Your task to perform on an android device: Check the weather Image 0: 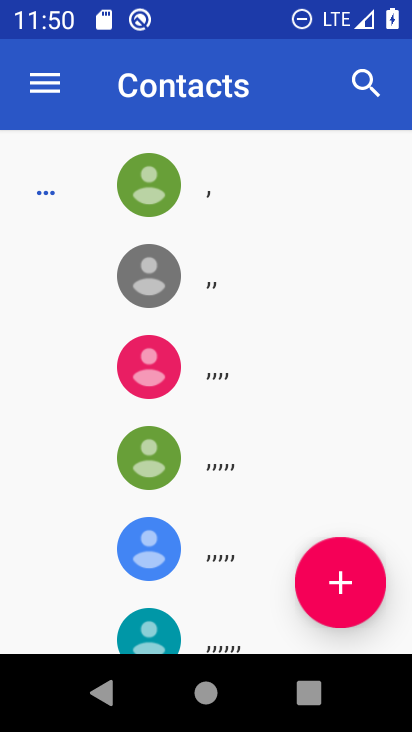
Step 0: press home button
Your task to perform on an android device: Check the weather Image 1: 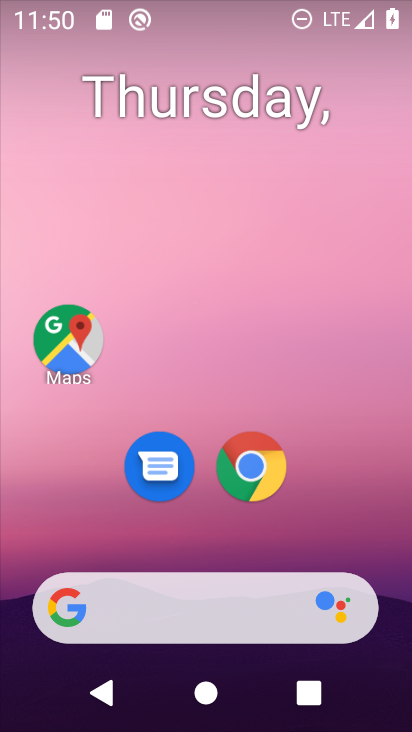
Step 1: drag from (242, 572) to (322, 22)
Your task to perform on an android device: Check the weather Image 2: 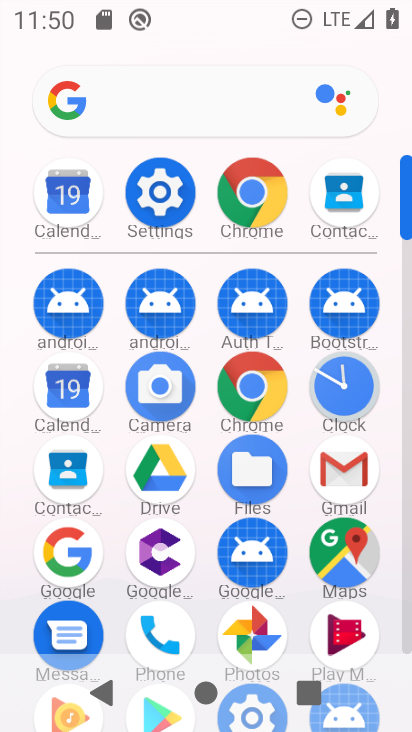
Step 2: press home button
Your task to perform on an android device: Check the weather Image 3: 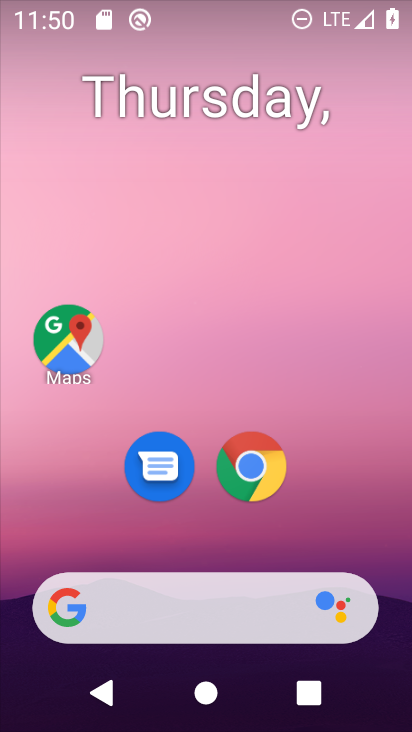
Step 3: drag from (26, 265) to (321, 243)
Your task to perform on an android device: Check the weather Image 4: 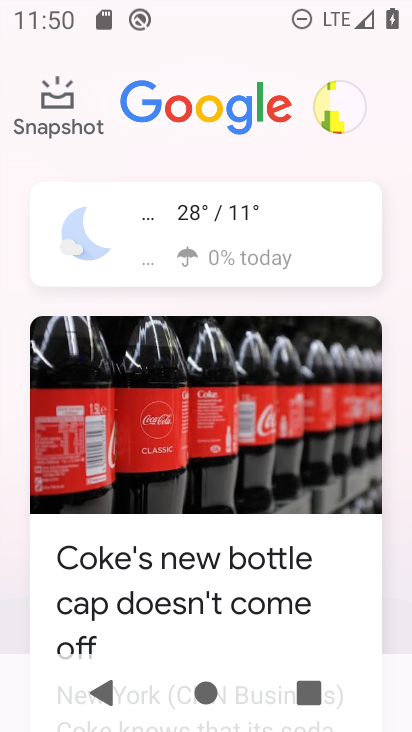
Step 4: click (192, 217)
Your task to perform on an android device: Check the weather Image 5: 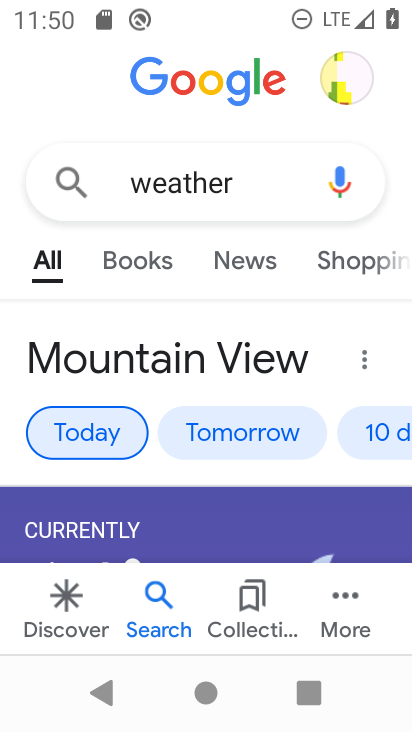
Step 5: task complete